Your task to perform on an android device: Open CNN.com Image 0: 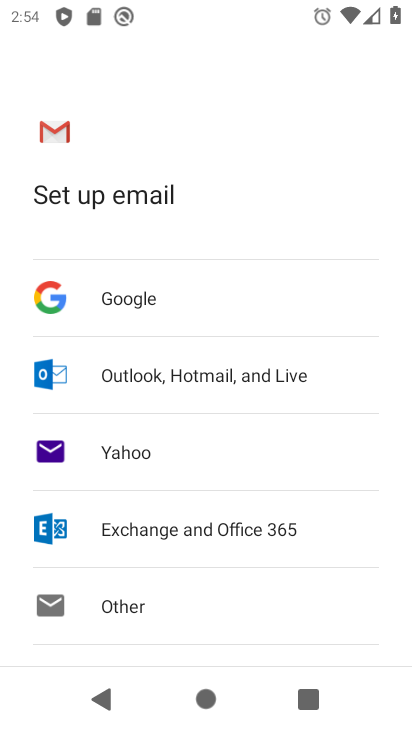
Step 0: press home button
Your task to perform on an android device: Open CNN.com Image 1: 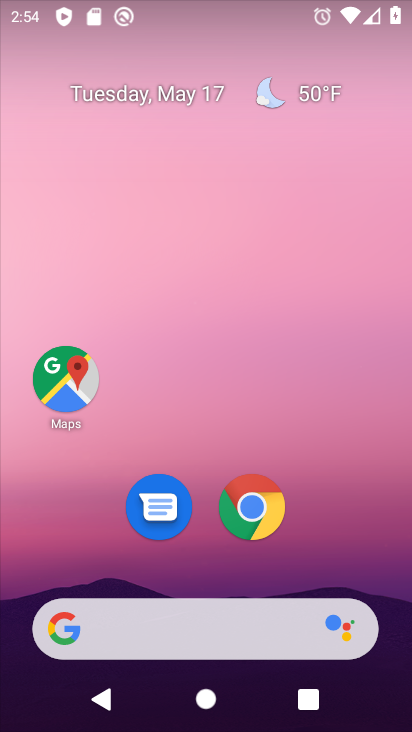
Step 1: click (266, 509)
Your task to perform on an android device: Open CNN.com Image 2: 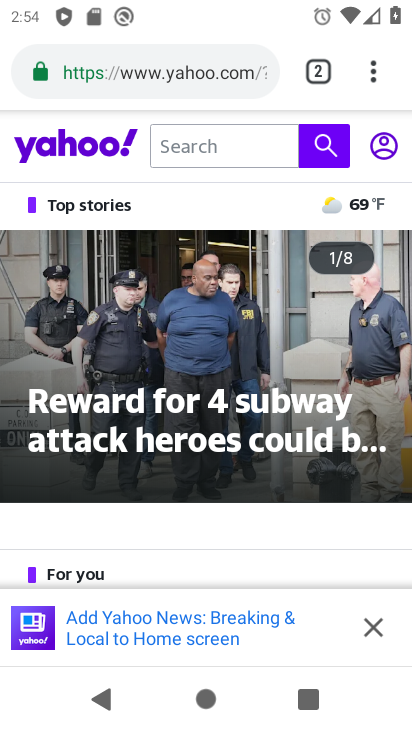
Step 2: click (314, 74)
Your task to perform on an android device: Open CNN.com Image 3: 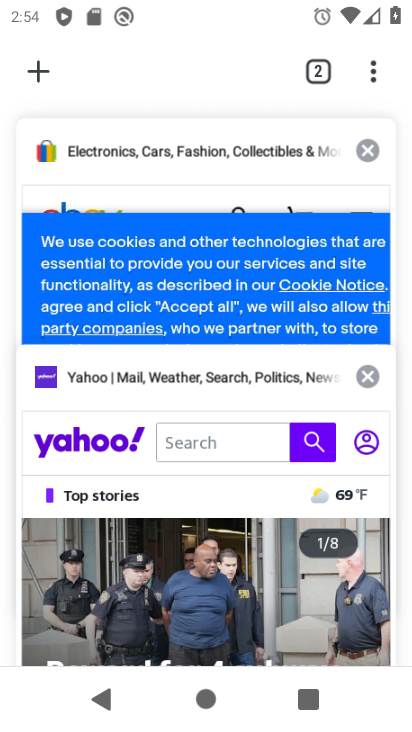
Step 3: click (45, 64)
Your task to perform on an android device: Open CNN.com Image 4: 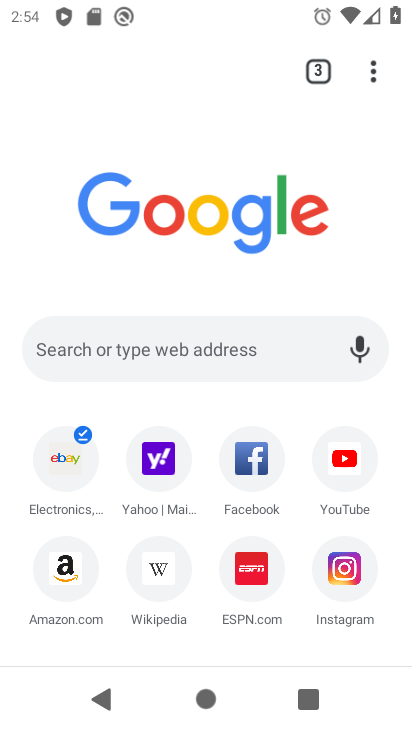
Step 4: click (190, 349)
Your task to perform on an android device: Open CNN.com Image 5: 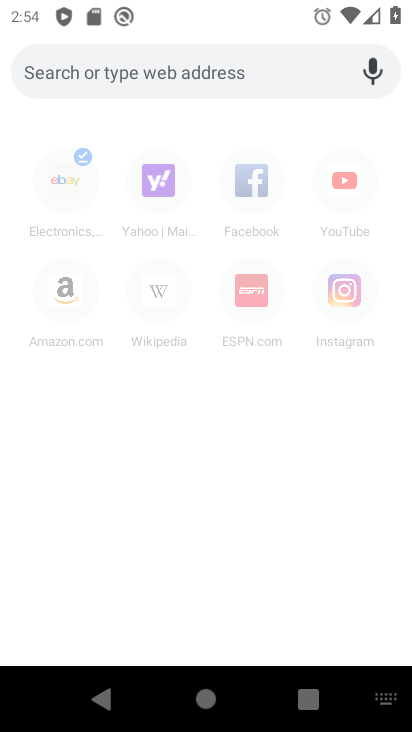
Step 5: type "CNN.COM"
Your task to perform on an android device: Open CNN.com Image 6: 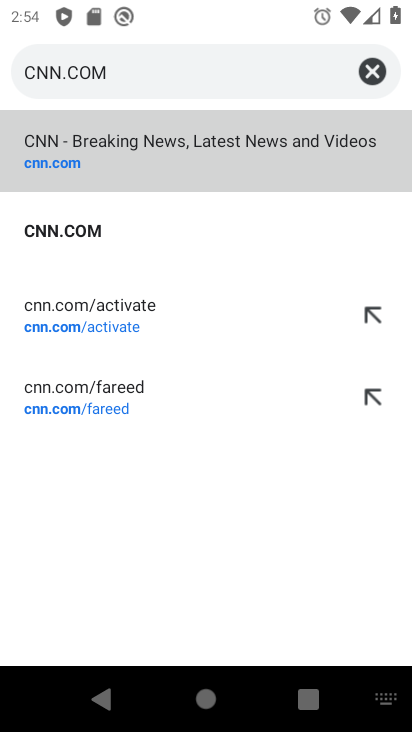
Step 6: click (135, 172)
Your task to perform on an android device: Open CNN.com Image 7: 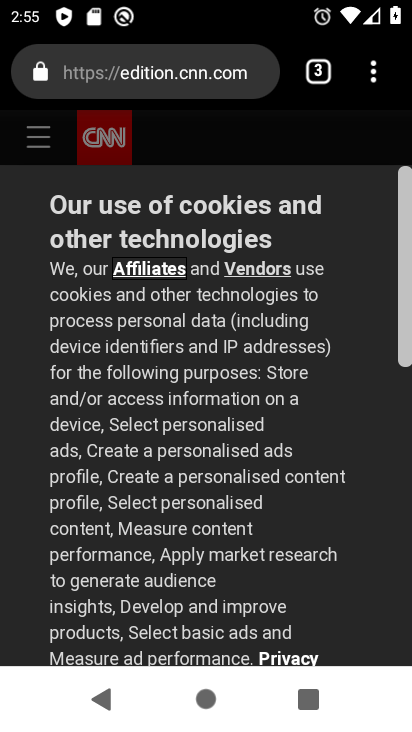
Step 7: task complete